Your task to perform on an android device: check battery use Image 0: 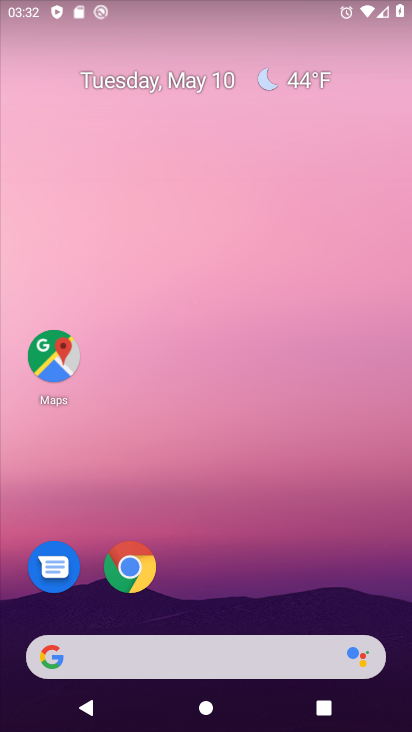
Step 0: drag from (255, 566) to (296, 135)
Your task to perform on an android device: check battery use Image 1: 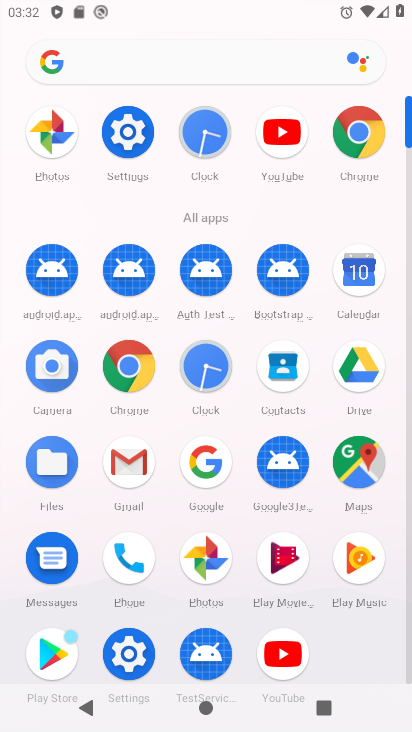
Step 1: click (134, 137)
Your task to perform on an android device: check battery use Image 2: 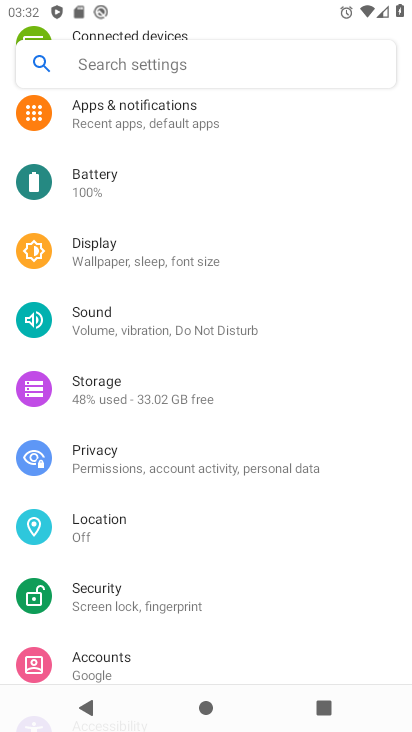
Step 2: click (156, 187)
Your task to perform on an android device: check battery use Image 3: 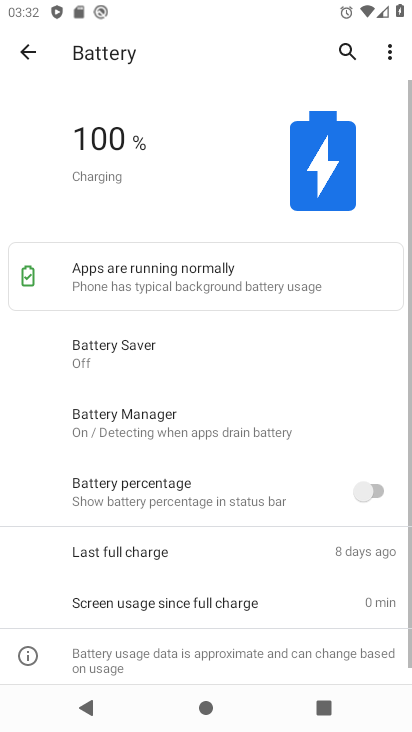
Step 3: click (381, 51)
Your task to perform on an android device: check battery use Image 4: 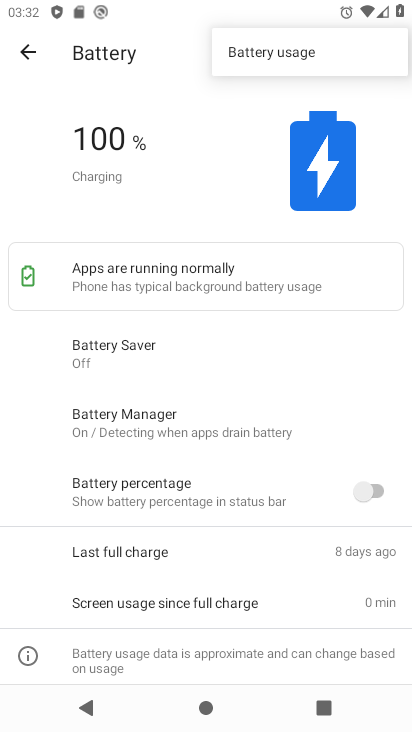
Step 4: click (244, 53)
Your task to perform on an android device: check battery use Image 5: 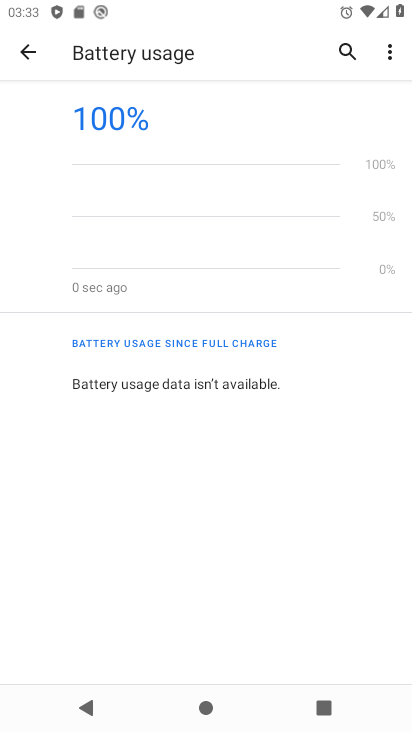
Step 5: task complete